Your task to perform on an android device: open a new tab in the chrome app Image 0: 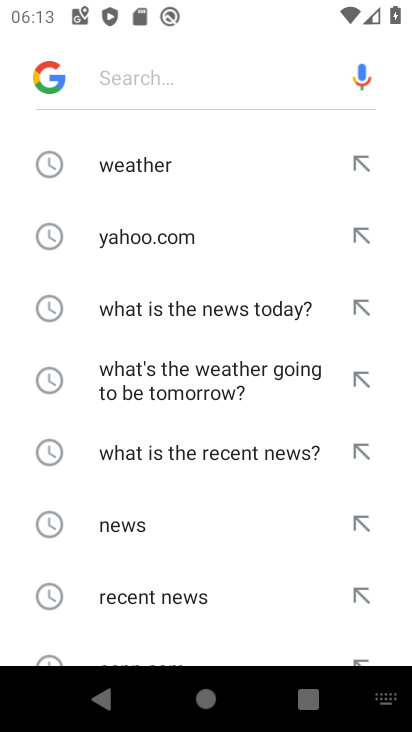
Step 0: press home button
Your task to perform on an android device: open a new tab in the chrome app Image 1: 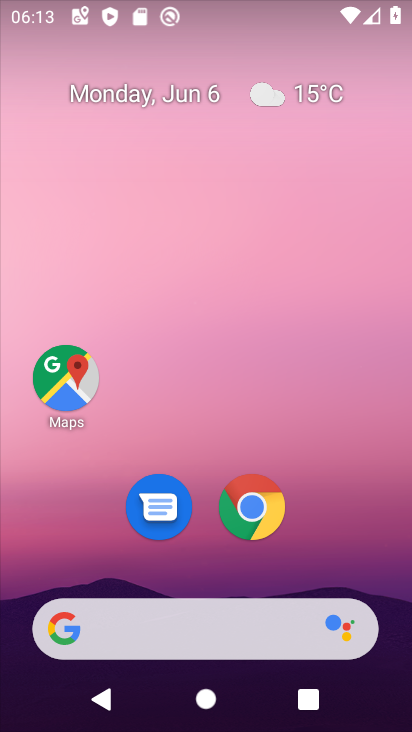
Step 1: click (248, 507)
Your task to perform on an android device: open a new tab in the chrome app Image 2: 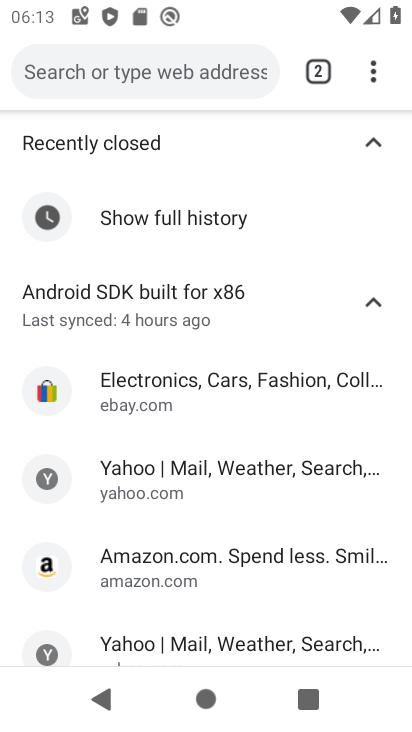
Step 2: click (331, 74)
Your task to perform on an android device: open a new tab in the chrome app Image 3: 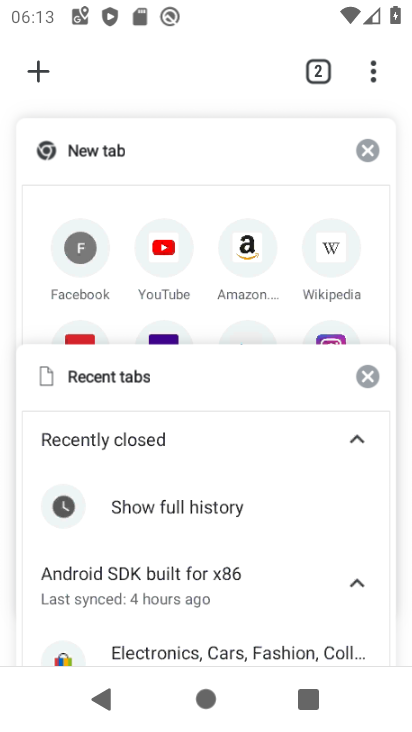
Step 3: click (44, 78)
Your task to perform on an android device: open a new tab in the chrome app Image 4: 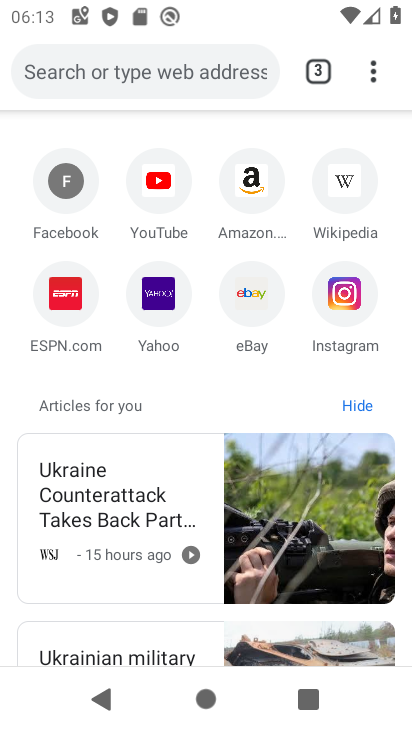
Step 4: task complete